Your task to perform on an android device: Show me popular videos on Youtube Image 0: 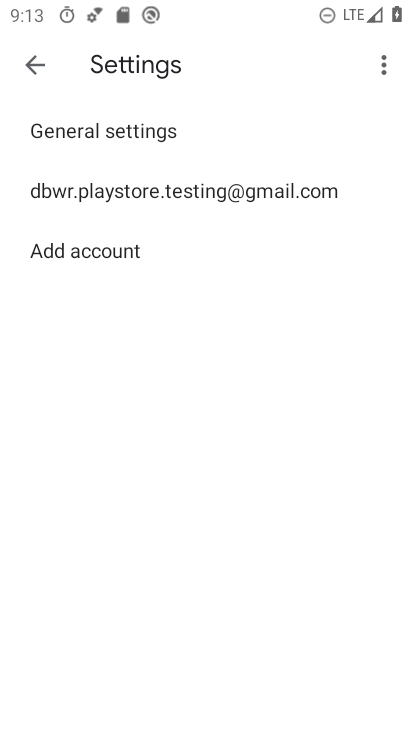
Step 0: press home button
Your task to perform on an android device: Show me popular videos on Youtube Image 1: 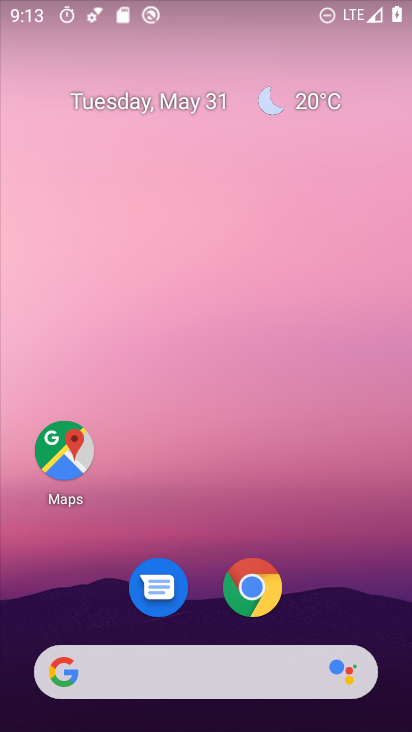
Step 1: drag from (211, 624) to (208, 80)
Your task to perform on an android device: Show me popular videos on Youtube Image 2: 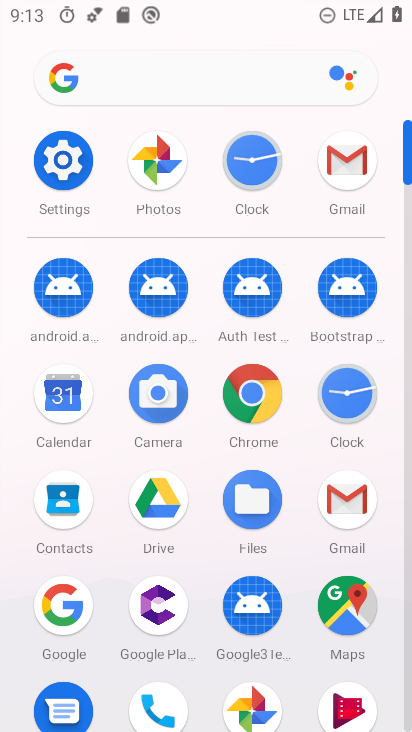
Step 2: drag from (209, 701) to (224, 203)
Your task to perform on an android device: Show me popular videos on Youtube Image 3: 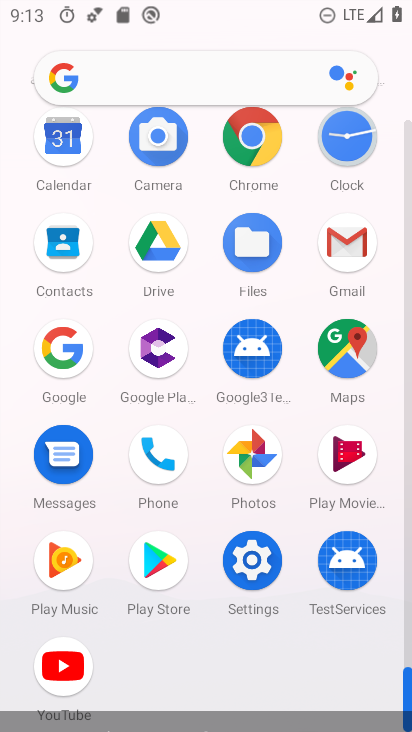
Step 3: click (74, 648)
Your task to perform on an android device: Show me popular videos on Youtube Image 4: 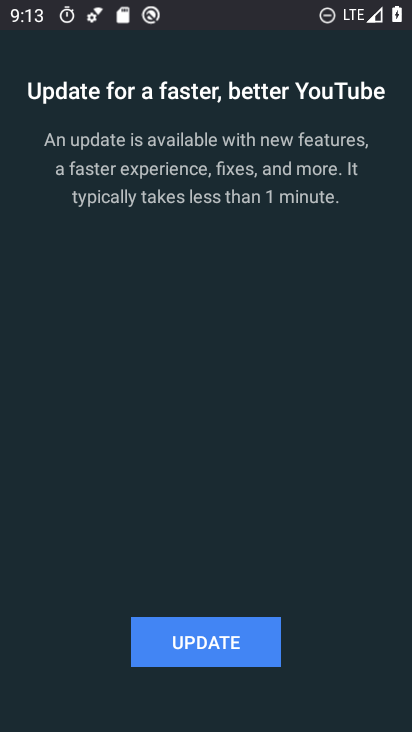
Step 4: click (263, 633)
Your task to perform on an android device: Show me popular videos on Youtube Image 5: 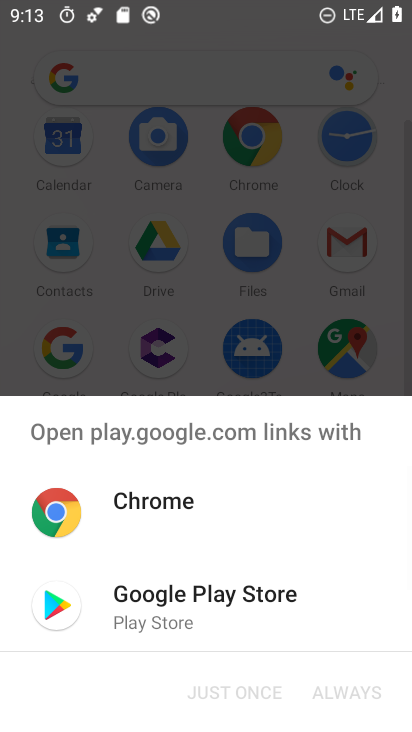
Step 5: click (221, 603)
Your task to perform on an android device: Show me popular videos on Youtube Image 6: 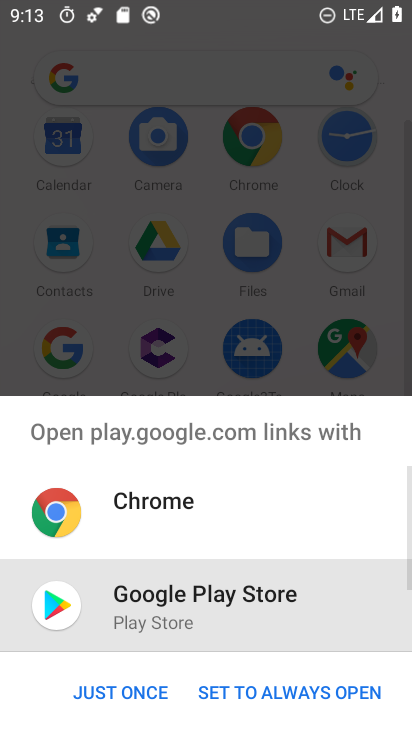
Step 6: click (122, 692)
Your task to perform on an android device: Show me popular videos on Youtube Image 7: 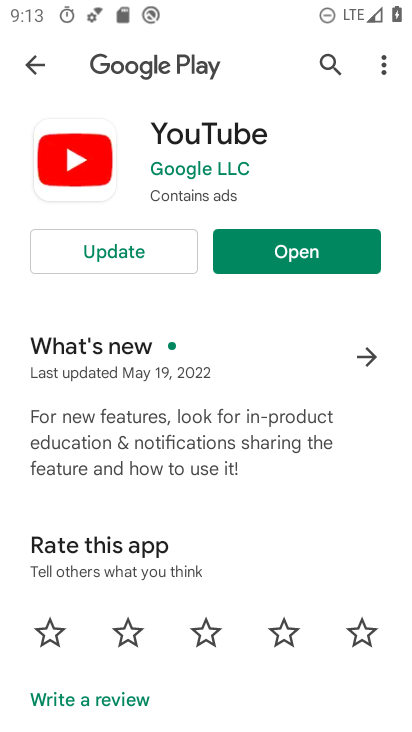
Step 7: click (138, 250)
Your task to perform on an android device: Show me popular videos on Youtube Image 8: 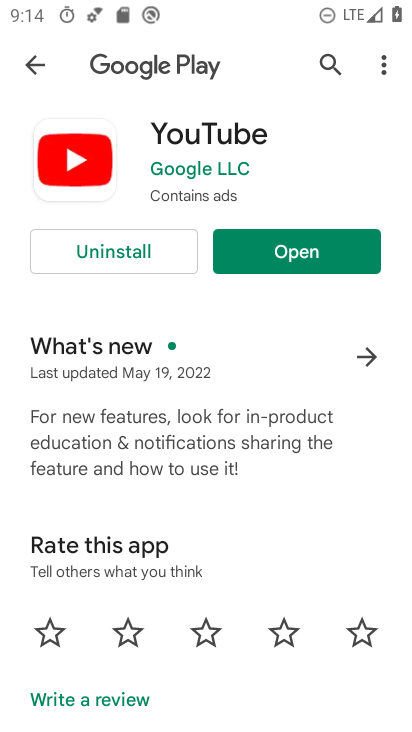
Step 8: click (244, 259)
Your task to perform on an android device: Show me popular videos on Youtube Image 9: 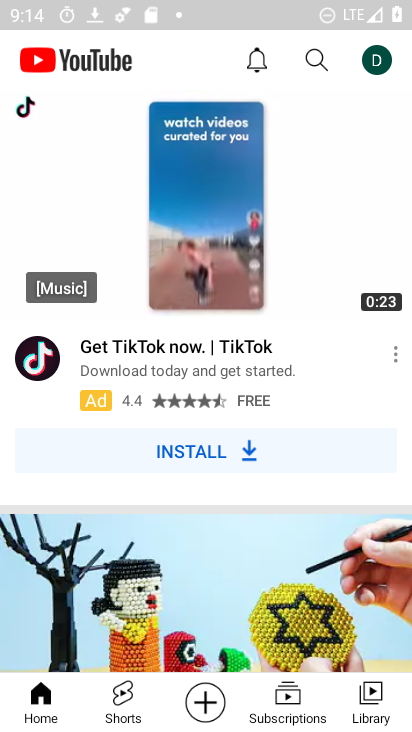
Step 9: drag from (85, 105) to (71, 533)
Your task to perform on an android device: Show me popular videos on Youtube Image 10: 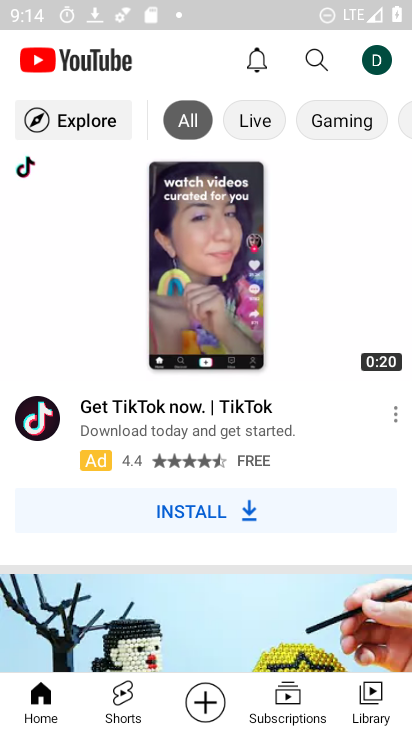
Step 10: click (96, 122)
Your task to perform on an android device: Show me popular videos on Youtube Image 11: 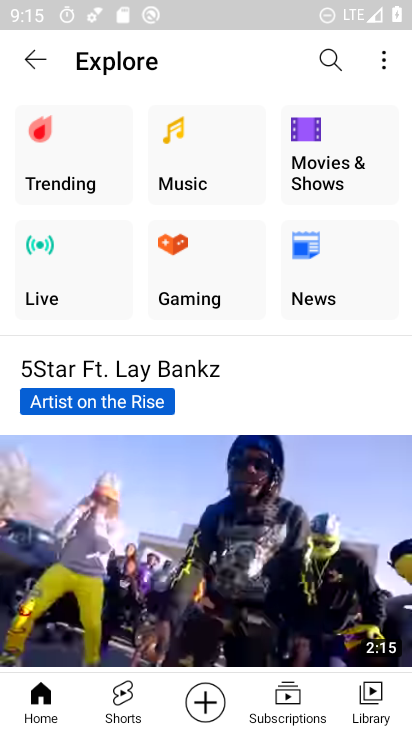
Step 11: click (75, 139)
Your task to perform on an android device: Show me popular videos on Youtube Image 12: 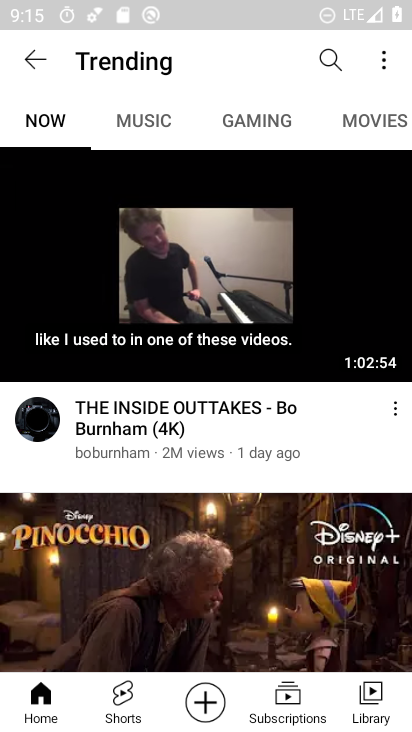
Step 12: task complete